Your task to perform on an android device: Open Maps and search for coffee Image 0: 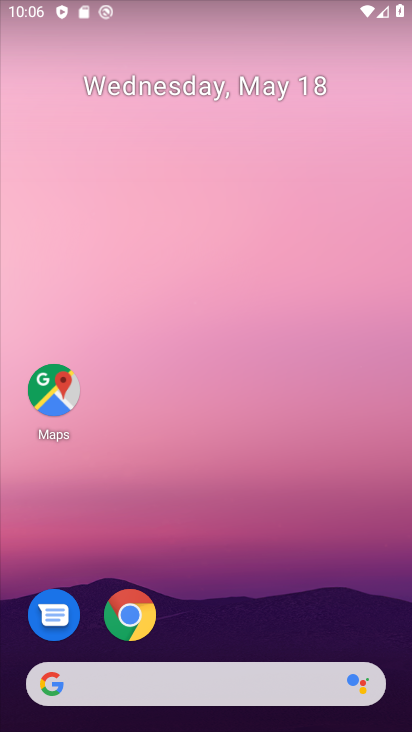
Step 0: click (54, 396)
Your task to perform on an android device: Open Maps and search for coffee Image 1: 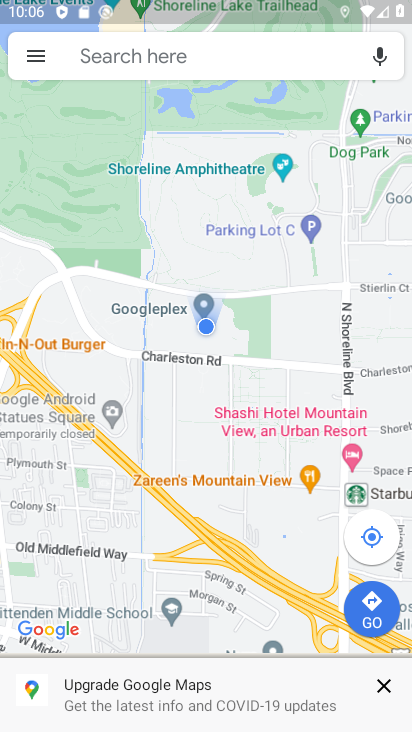
Step 1: click (221, 64)
Your task to perform on an android device: Open Maps and search for coffee Image 2: 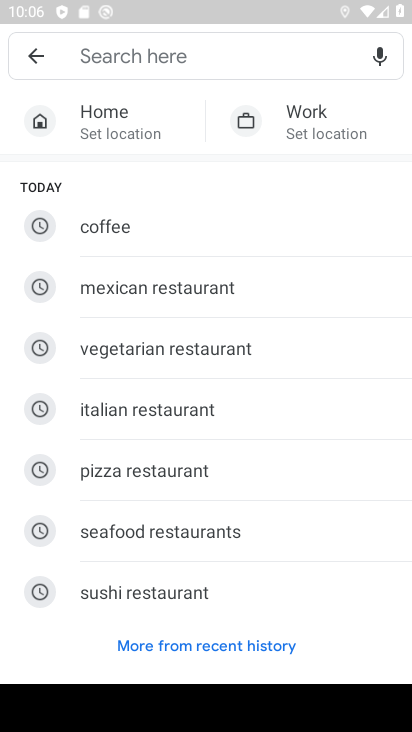
Step 2: click (119, 244)
Your task to perform on an android device: Open Maps and search for coffee Image 3: 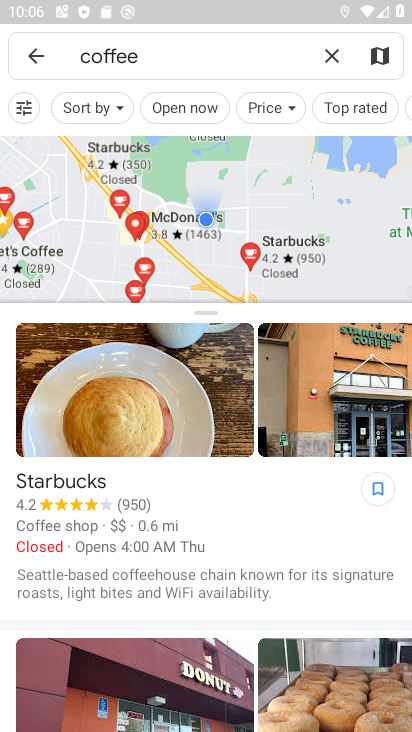
Step 3: task complete